Your task to perform on an android device: check the backup settings in the google photos Image 0: 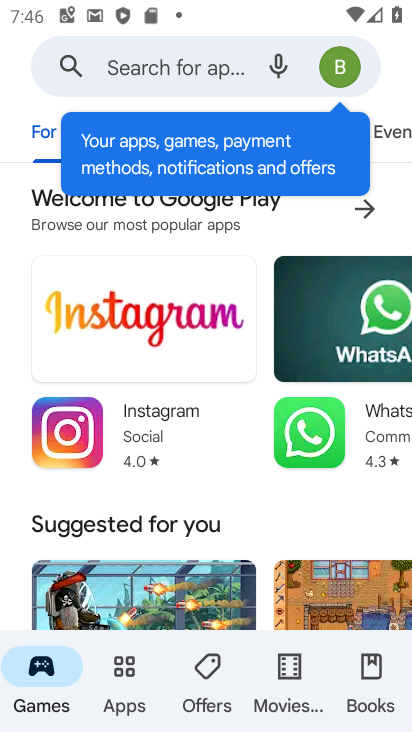
Step 0: press home button
Your task to perform on an android device: check the backup settings in the google photos Image 1: 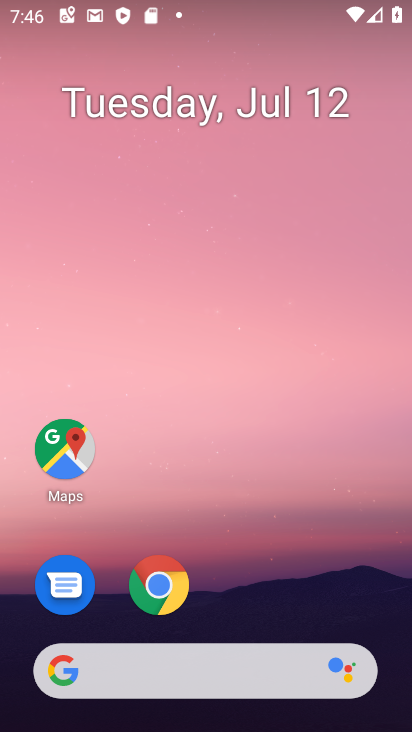
Step 1: drag from (238, 598) to (277, 58)
Your task to perform on an android device: check the backup settings in the google photos Image 2: 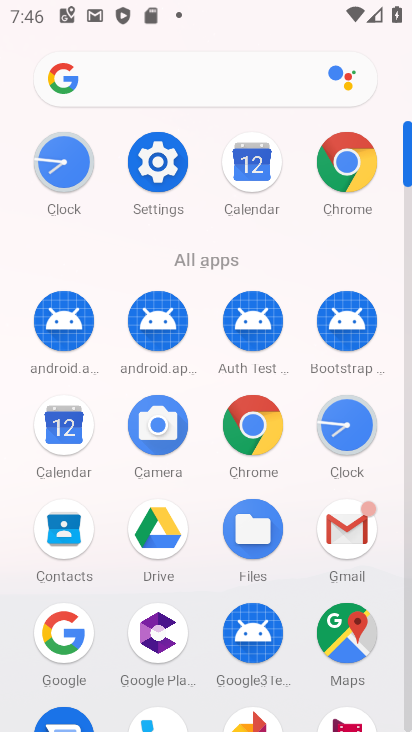
Step 2: drag from (206, 499) to (234, 118)
Your task to perform on an android device: check the backup settings in the google photos Image 3: 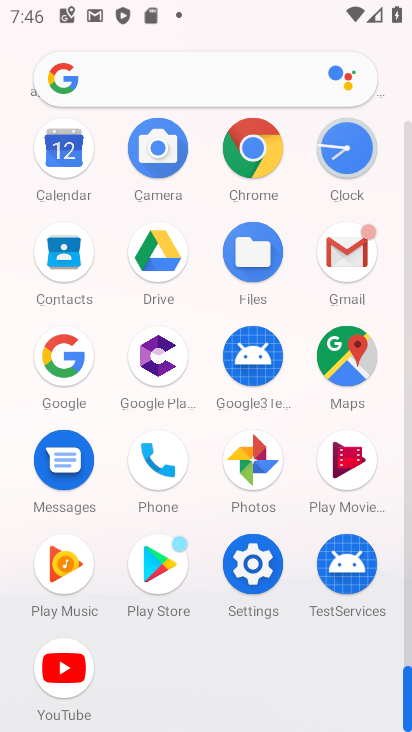
Step 3: click (251, 460)
Your task to perform on an android device: check the backup settings in the google photos Image 4: 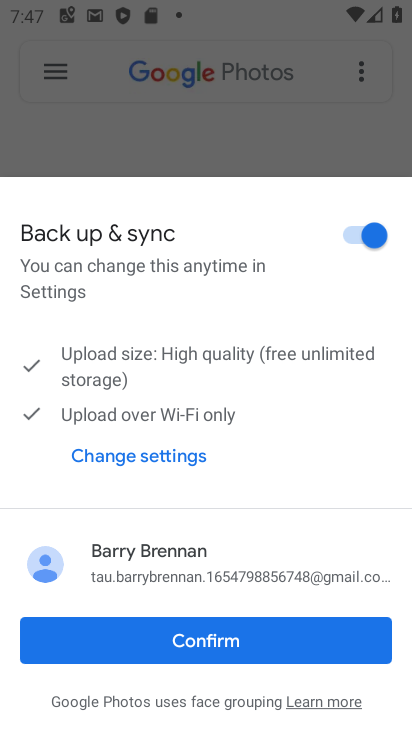
Step 4: click (279, 646)
Your task to perform on an android device: check the backup settings in the google photos Image 5: 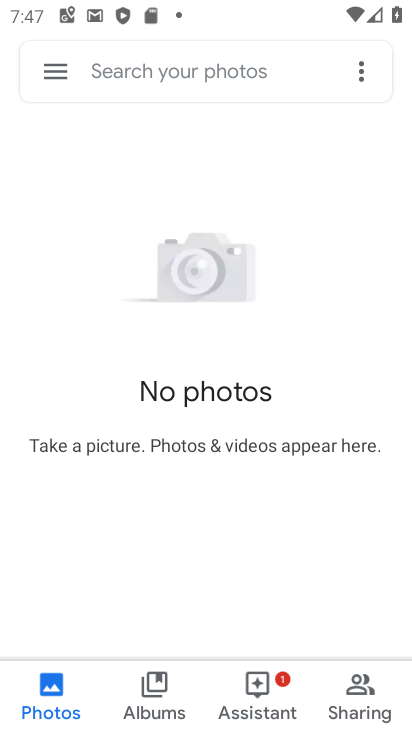
Step 5: click (56, 67)
Your task to perform on an android device: check the backup settings in the google photos Image 6: 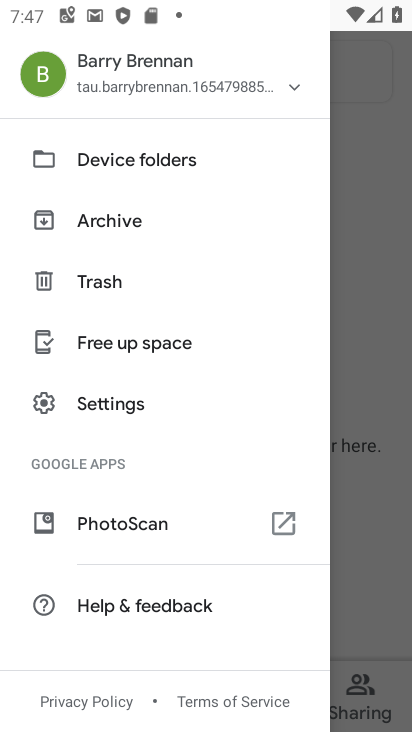
Step 6: click (115, 402)
Your task to perform on an android device: check the backup settings in the google photos Image 7: 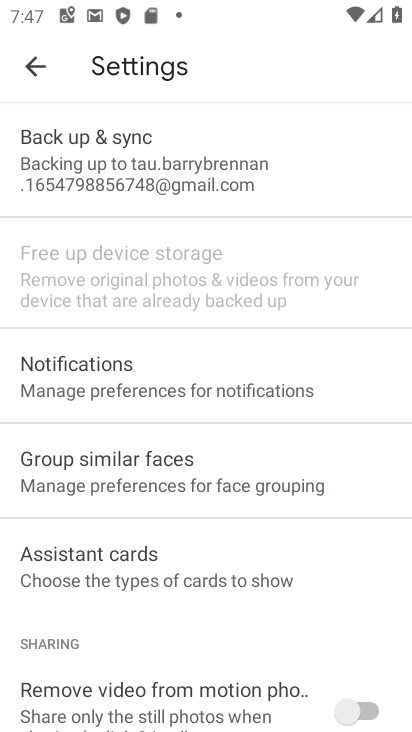
Step 7: click (149, 170)
Your task to perform on an android device: check the backup settings in the google photos Image 8: 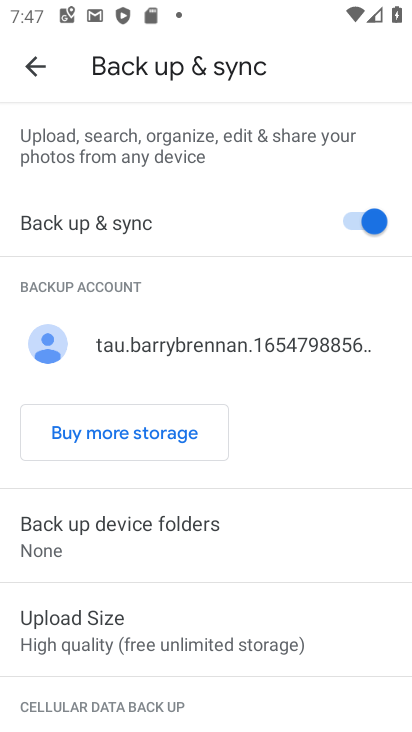
Step 8: task complete